Your task to perform on an android device: delete the emails in spam in the gmail app Image 0: 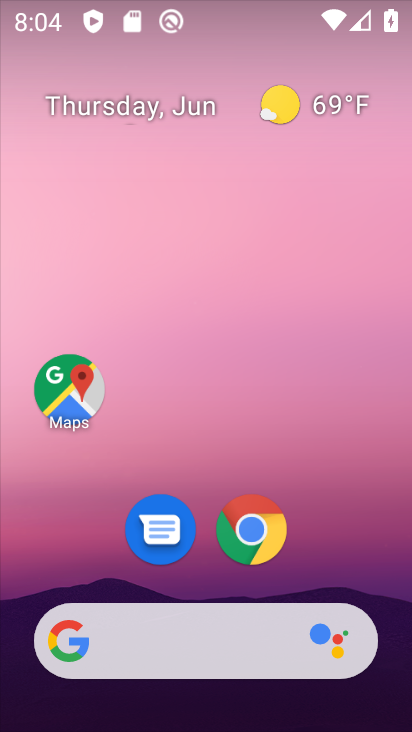
Step 0: drag from (229, 624) to (141, 82)
Your task to perform on an android device: delete the emails in spam in the gmail app Image 1: 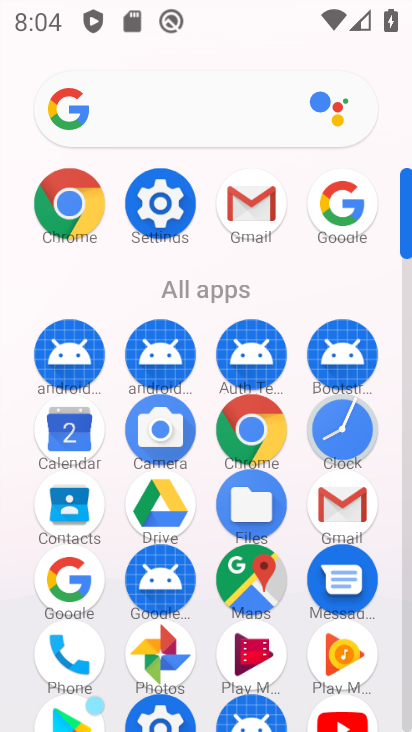
Step 1: click (356, 498)
Your task to perform on an android device: delete the emails in spam in the gmail app Image 2: 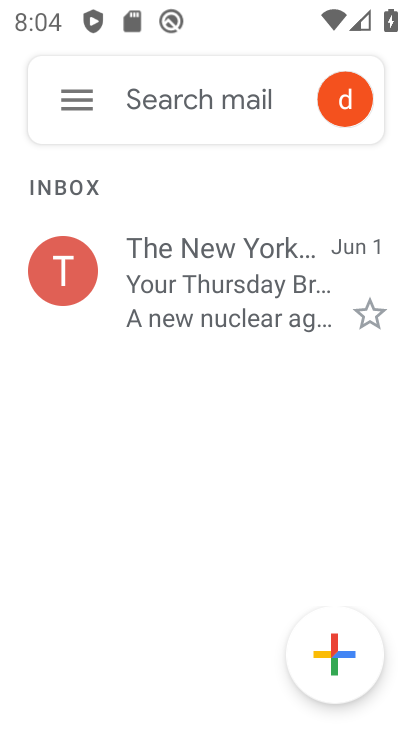
Step 2: click (66, 94)
Your task to perform on an android device: delete the emails in spam in the gmail app Image 3: 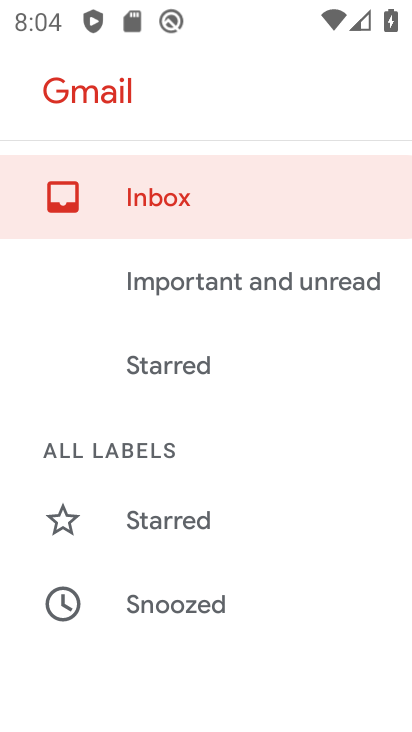
Step 3: drag from (65, 557) to (42, 170)
Your task to perform on an android device: delete the emails in spam in the gmail app Image 4: 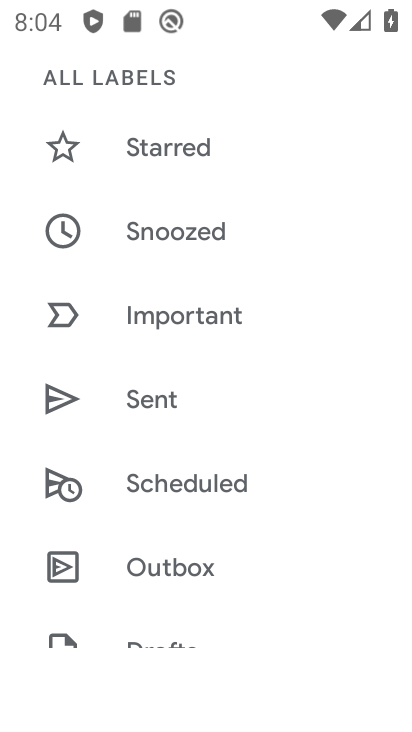
Step 4: drag from (136, 558) to (105, 148)
Your task to perform on an android device: delete the emails in spam in the gmail app Image 5: 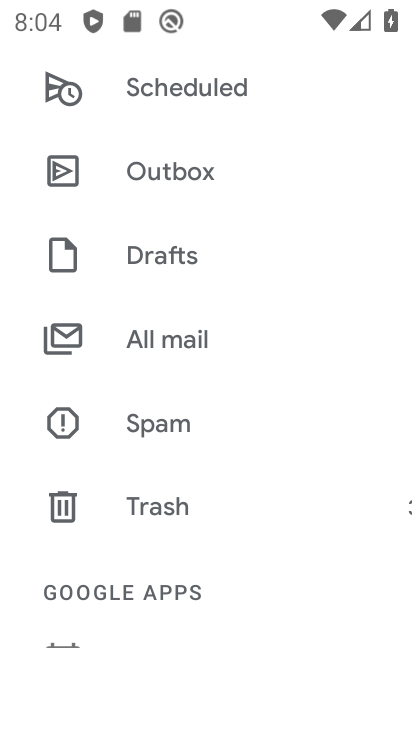
Step 5: click (166, 411)
Your task to perform on an android device: delete the emails in spam in the gmail app Image 6: 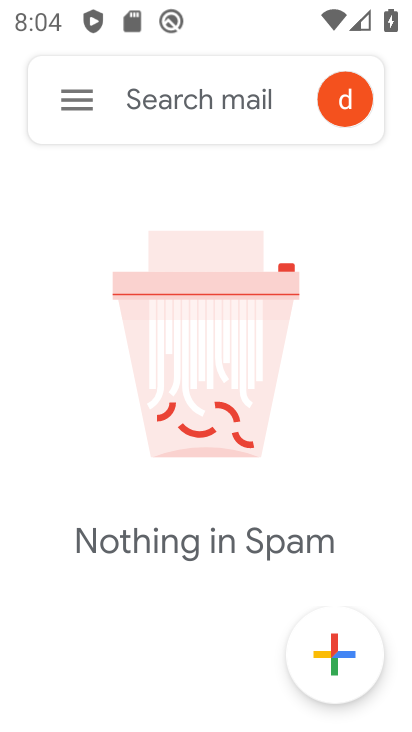
Step 6: task complete